Your task to perform on an android device: Go to wifi settings Image 0: 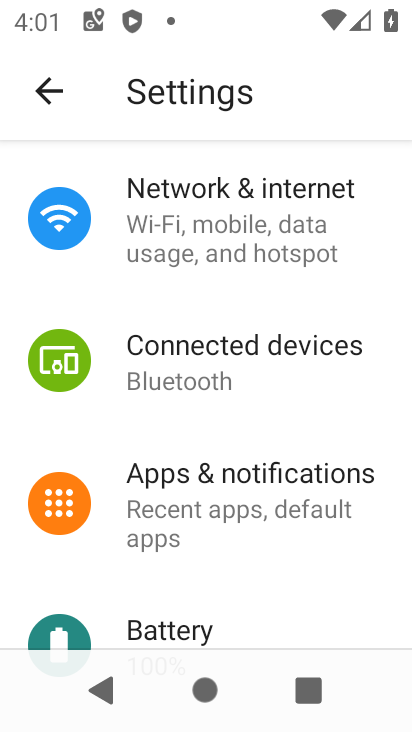
Step 0: click (258, 236)
Your task to perform on an android device: Go to wifi settings Image 1: 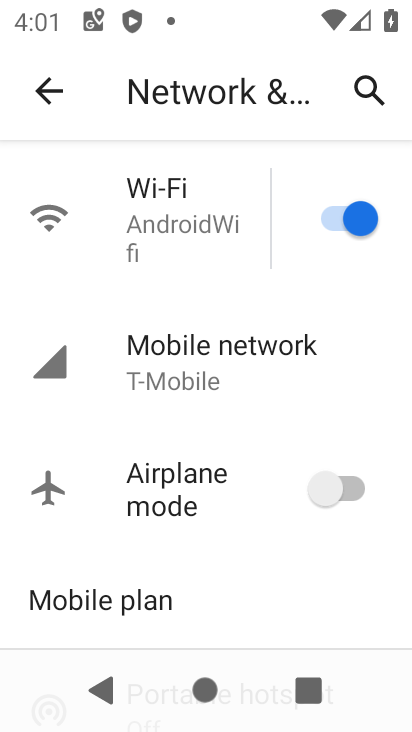
Step 1: click (175, 207)
Your task to perform on an android device: Go to wifi settings Image 2: 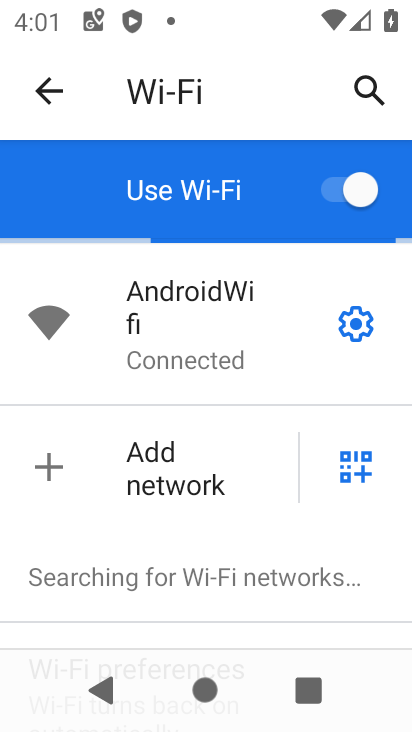
Step 2: task complete